Your task to perform on an android device: Open battery settings Image 0: 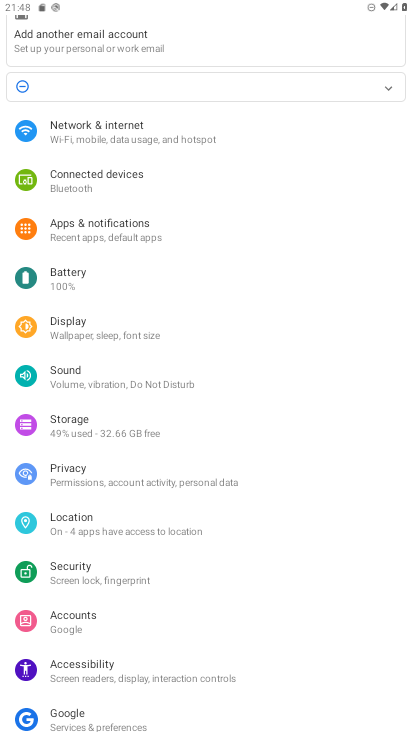
Step 0: click (68, 272)
Your task to perform on an android device: Open battery settings Image 1: 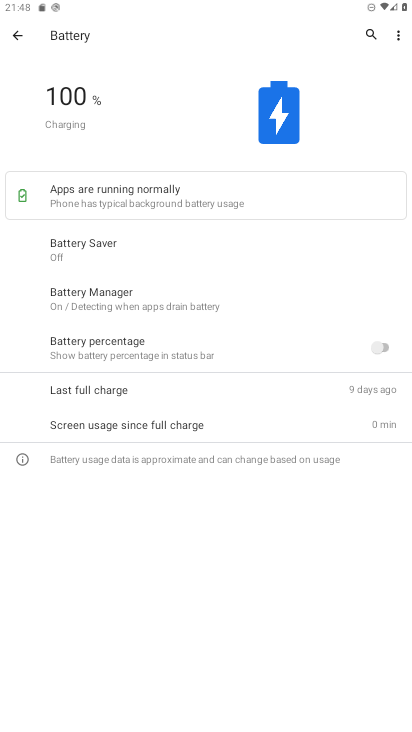
Step 1: task complete